Your task to perform on an android device: check the backup settings in the google photos Image 0: 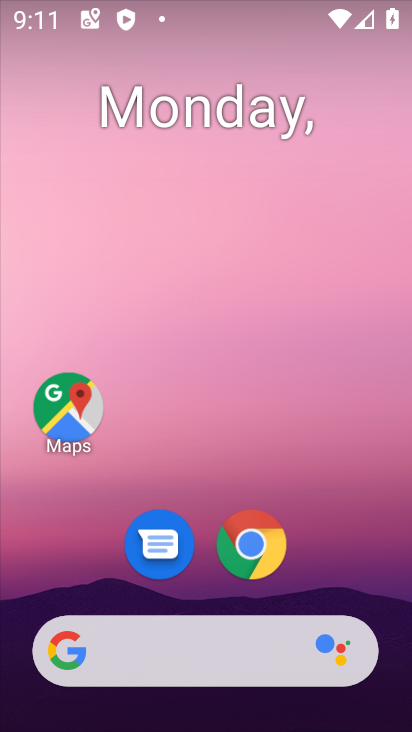
Step 0: drag from (328, 505) to (275, 23)
Your task to perform on an android device: check the backup settings in the google photos Image 1: 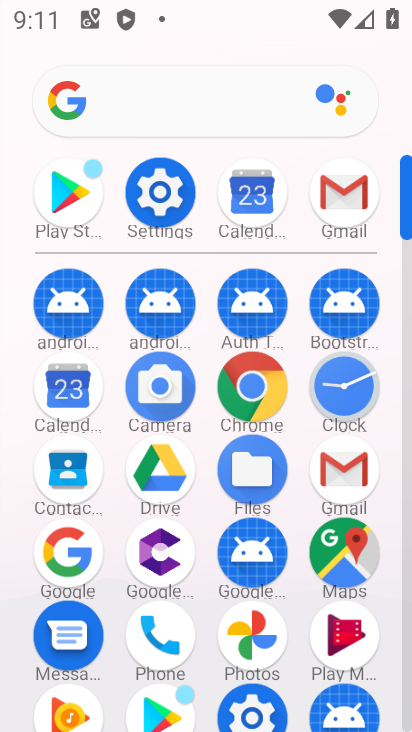
Step 1: click (253, 623)
Your task to perform on an android device: check the backup settings in the google photos Image 2: 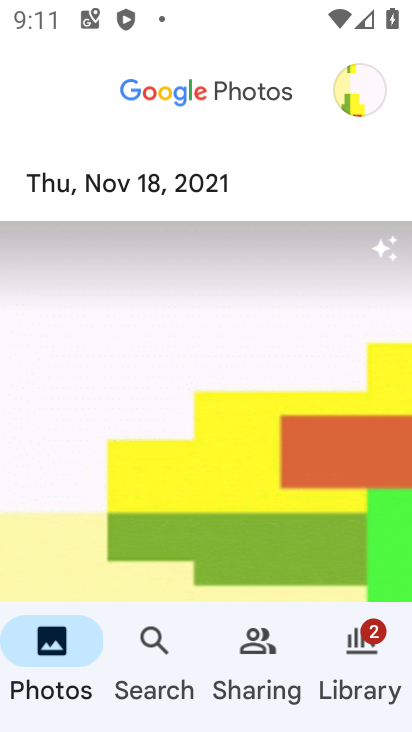
Step 2: click (364, 75)
Your task to perform on an android device: check the backup settings in the google photos Image 3: 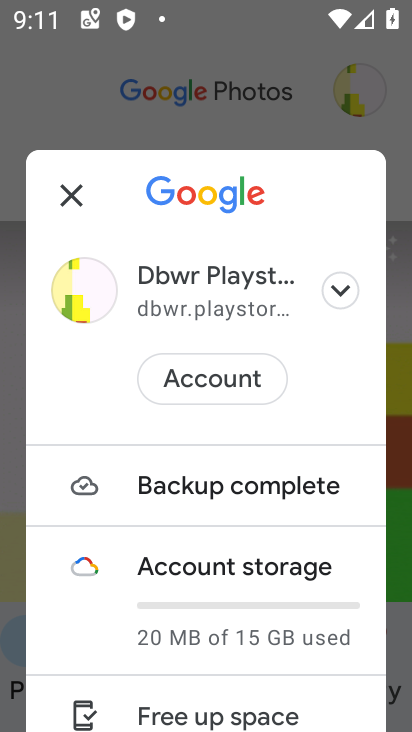
Step 3: drag from (257, 491) to (257, 92)
Your task to perform on an android device: check the backup settings in the google photos Image 4: 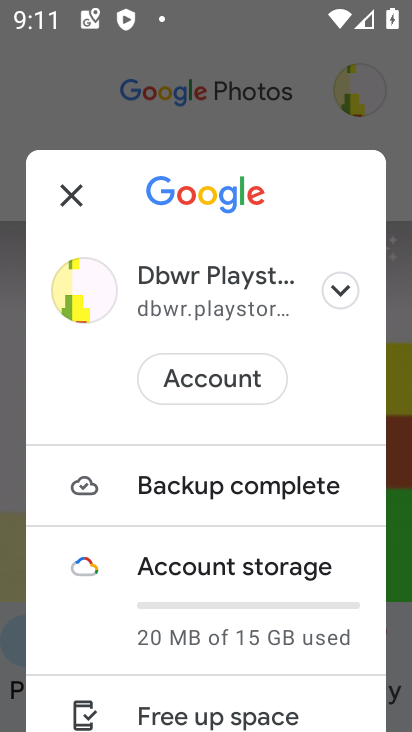
Step 4: drag from (216, 603) to (199, 260)
Your task to perform on an android device: check the backup settings in the google photos Image 5: 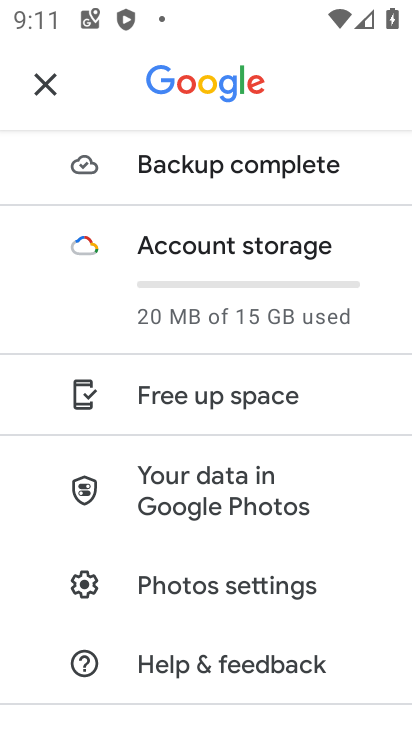
Step 5: click (212, 576)
Your task to perform on an android device: check the backup settings in the google photos Image 6: 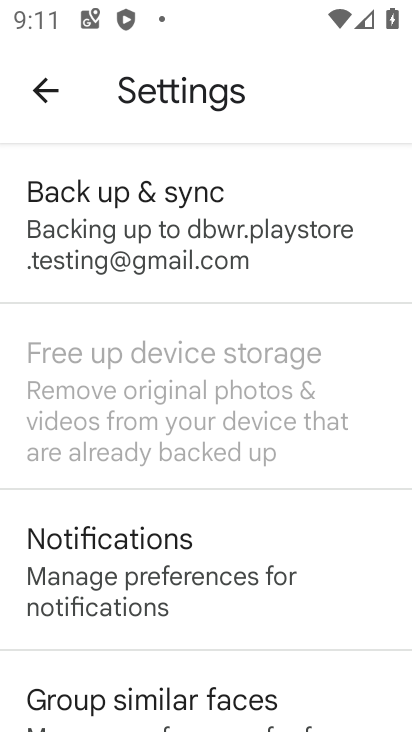
Step 6: click (174, 236)
Your task to perform on an android device: check the backup settings in the google photos Image 7: 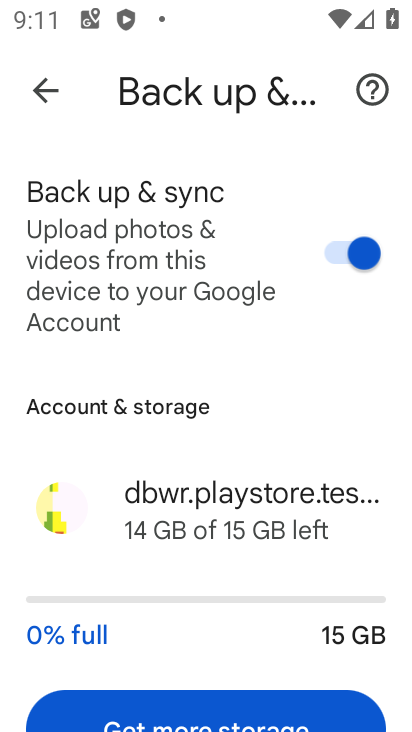
Step 7: task complete